Your task to perform on an android device: turn off smart reply in the gmail app Image 0: 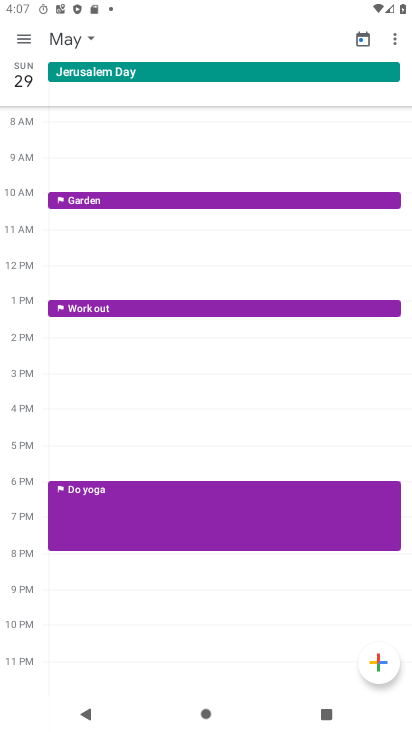
Step 0: press home button
Your task to perform on an android device: turn off smart reply in the gmail app Image 1: 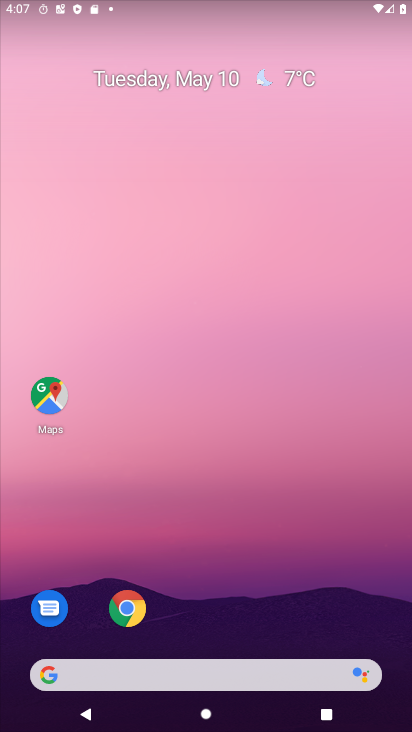
Step 1: drag from (325, 601) to (272, 4)
Your task to perform on an android device: turn off smart reply in the gmail app Image 2: 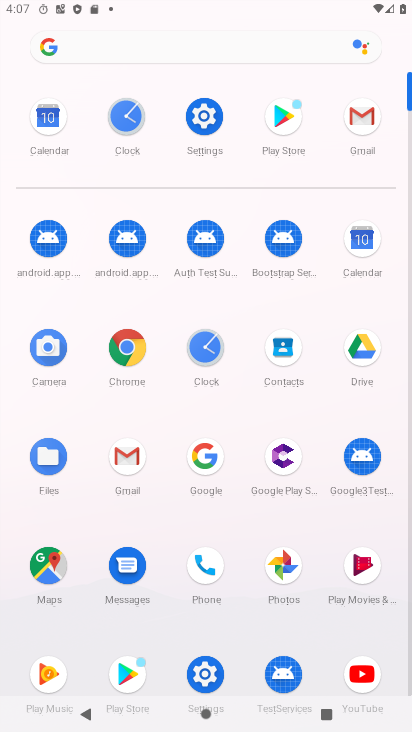
Step 2: click (359, 125)
Your task to perform on an android device: turn off smart reply in the gmail app Image 3: 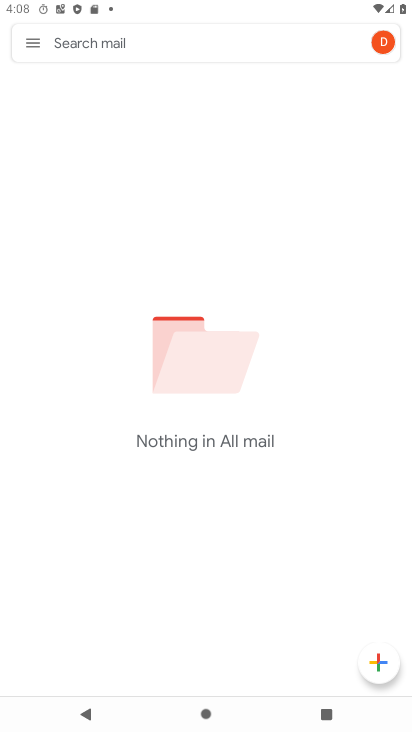
Step 3: click (36, 46)
Your task to perform on an android device: turn off smart reply in the gmail app Image 4: 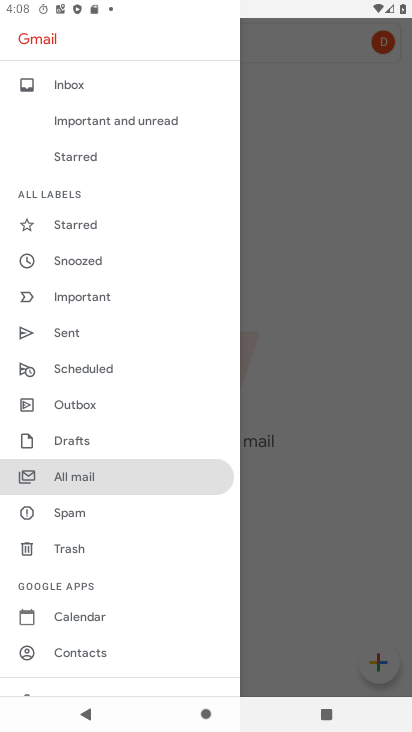
Step 4: drag from (149, 638) to (136, 331)
Your task to perform on an android device: turn off smart reply in the gmail app Image 5: 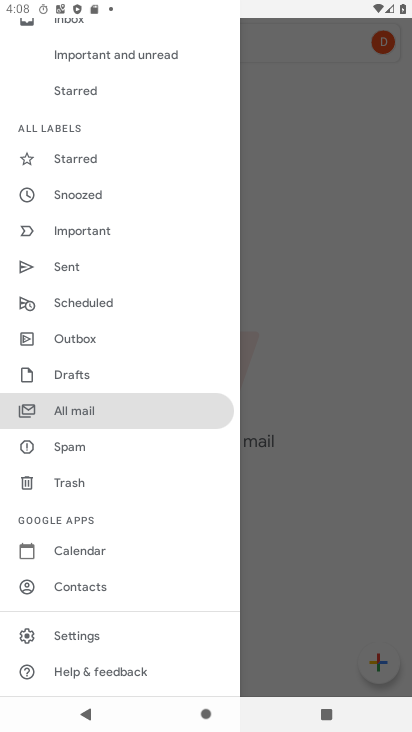
Step 5: click (96, 626)
Your task to perform on an android device: turn off smart reply in the gmail app Image 6: 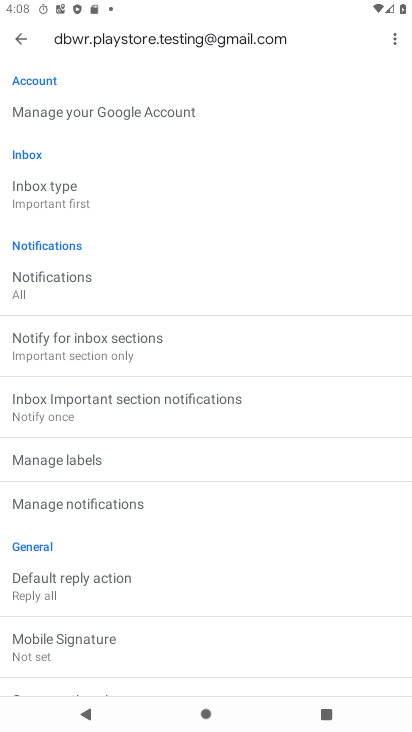
Step 6: drag from (142, 445) to (132, 112)
Your task to perform on an android device: turn off smart reply in the gmail app Image 7: 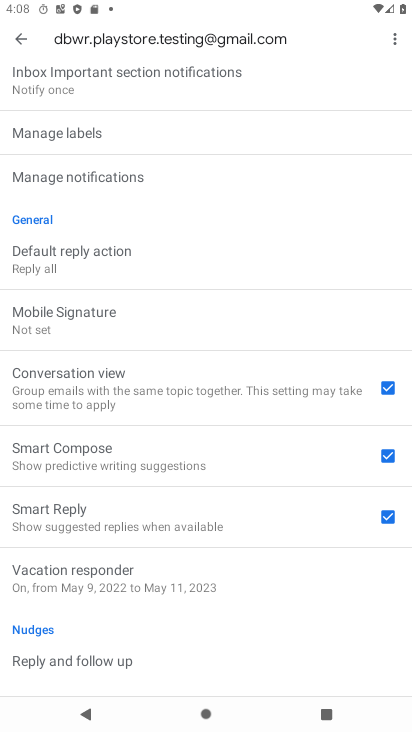
Step 7: drag from (125, 518) to (109, 256)
Your task to perform on an android device: turn off smart reply in the gmail app Image 8: 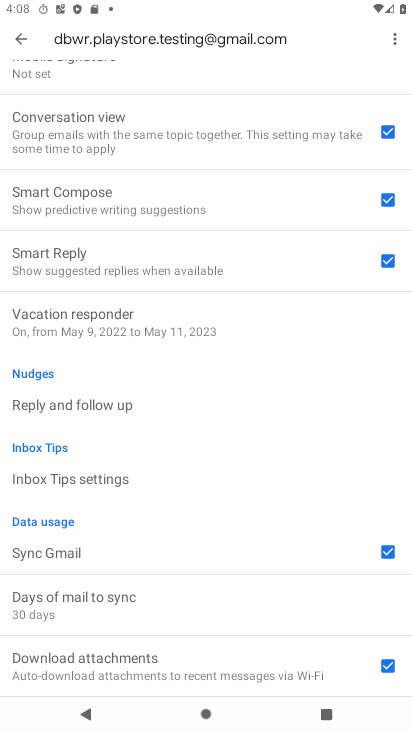
Step 8: click (383, 261)
Your task to perform on an android device: turn off smart reply in the gmail app Image 9: 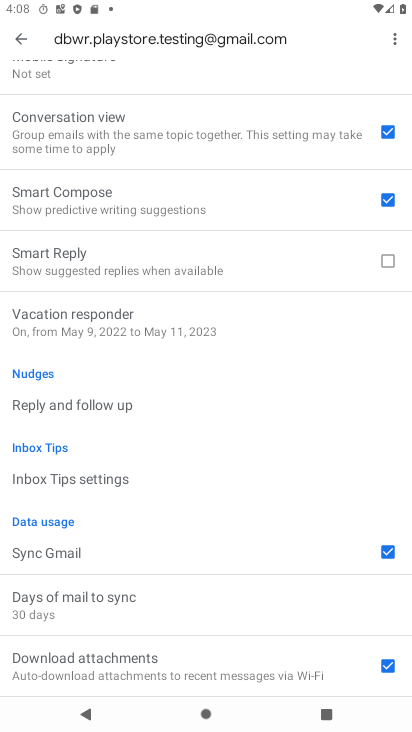
Step 9: task complete